Your task to perform on an android device: open app "LinkedIn" (install if not already installed), go to login, and select forgot password Image 0: 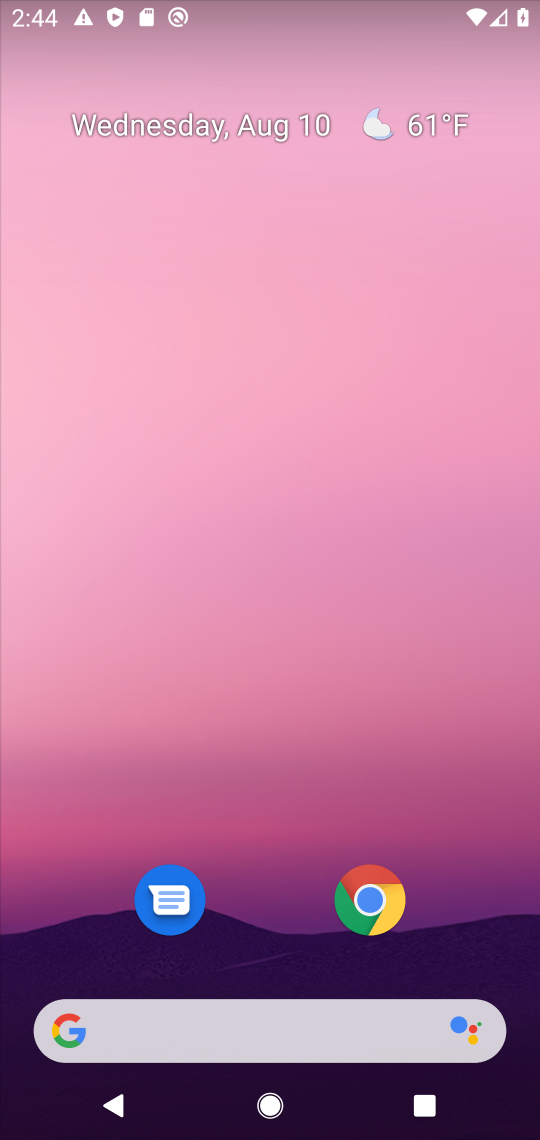
Step 0: drag from (263, 978) to (2, 192)
Your task to perform on an android device: open app "LinkedIn" (install if not already installed), go to login, and select forgot password Image 1: 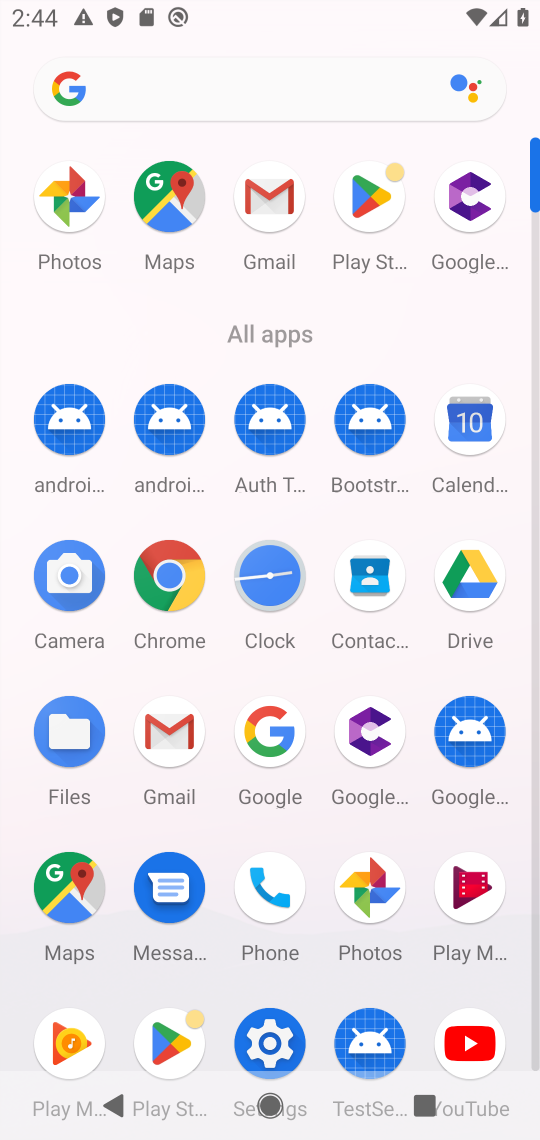
Step 1: click (365, 206)
Your task to perform on an android device: open app "LinkedIn" (install if not already installed), go to login, and select forgot password Image 2: 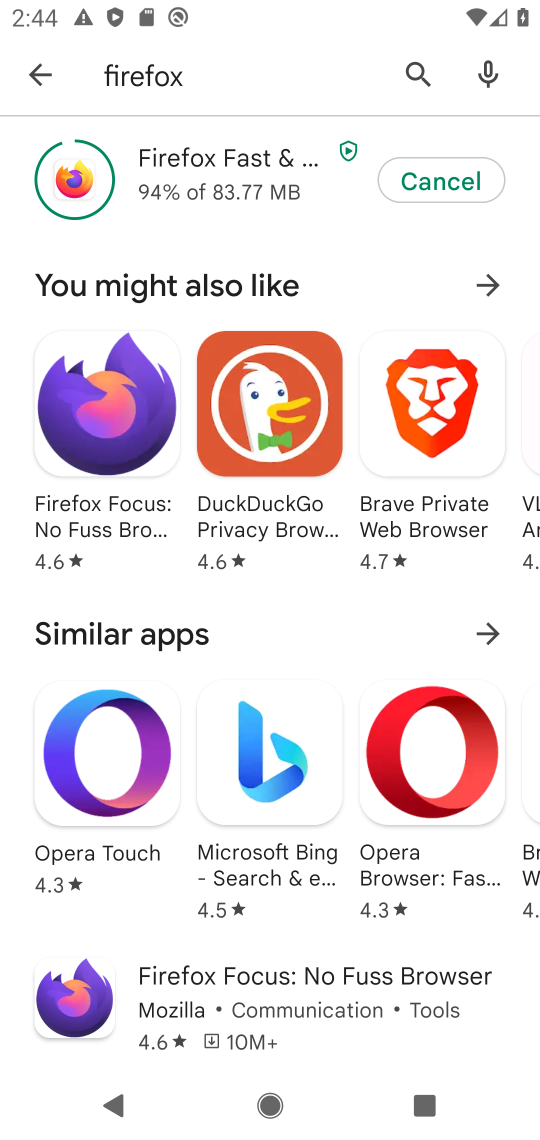
Step 2: click (424, 79)
Your task to perform on an android device: open app "LinkedIn" (install if not already installed), go to login, and select forgot password Image 3: 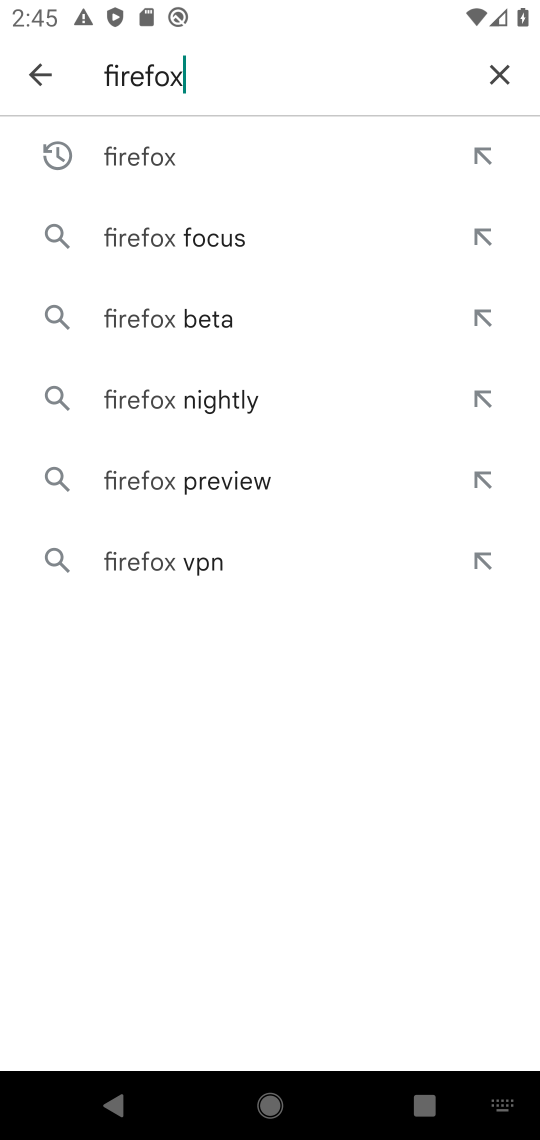
Step 3: click (490, 81)
Your task to perform on an android device: open app "LinkedIn" (install if not already installed), go to login, and select forgot password Image 4: 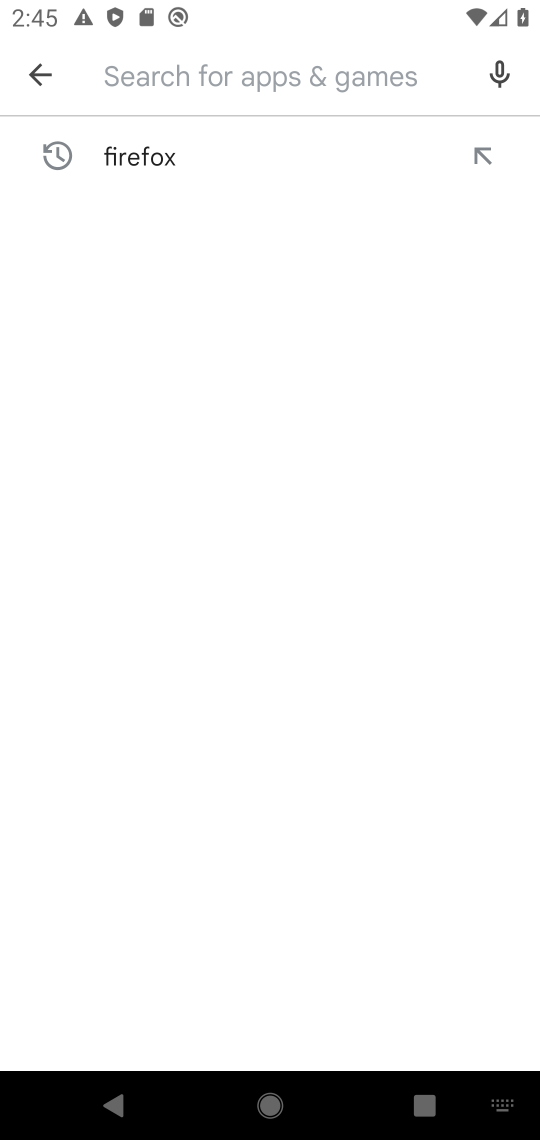
Step 4: type "linedin"
Your task to perform on an android device: open app "LinkedIn" (install if not already installed), go to login, and select forgot password Image 5: 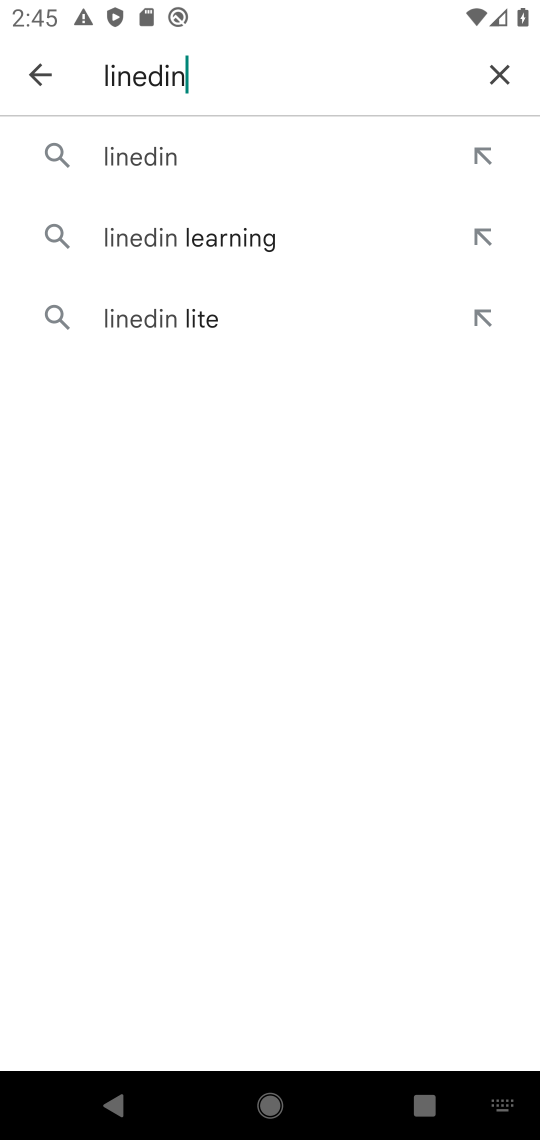
Step 5: click (253, 134)
Your task to perform on an android device: open app "LinkedIn" (install if not already installed), go to login, and select forgot password Image 6: 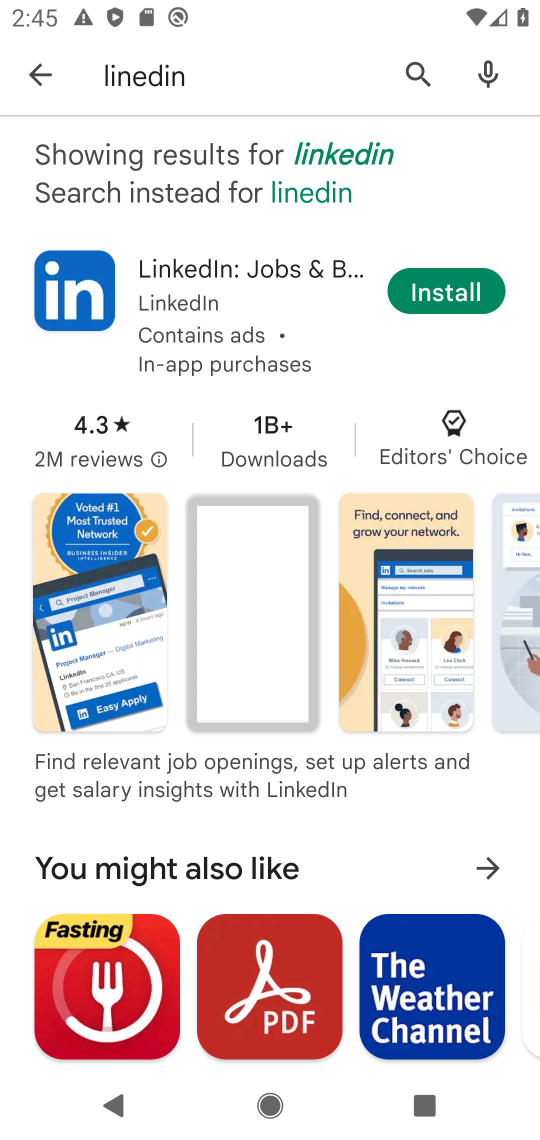
Step 6: click (448, 282)
Your task to perform on an android device: open app "LinkedIn" (install if not already installed), go to login, and select forgot password Image 7: 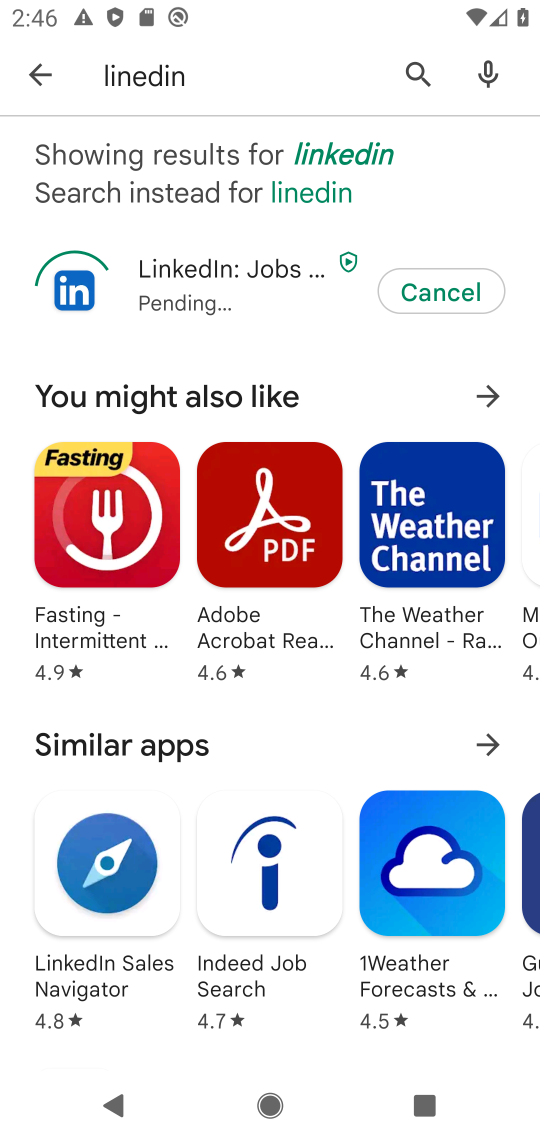
Step 7: task complete